Your task to perform on an android device: toggle sleep mode Image 0: 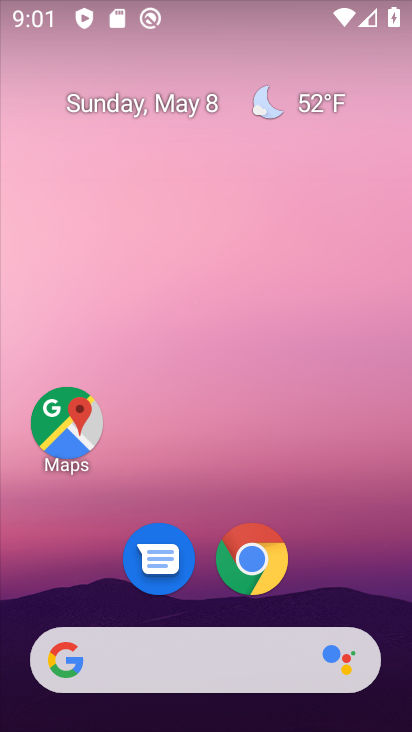
Step 0: drag from (354, 549) to (340, 5)
Your task to perform on an android device: toggle sleep mode Image 1: 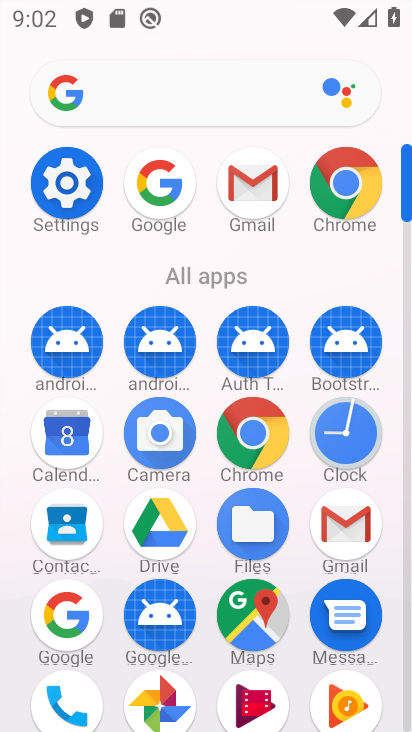
Step 1: drag from (184, 271) to (177, 56)
Your task to perform on an android device: toggle sleep mode Image 2: 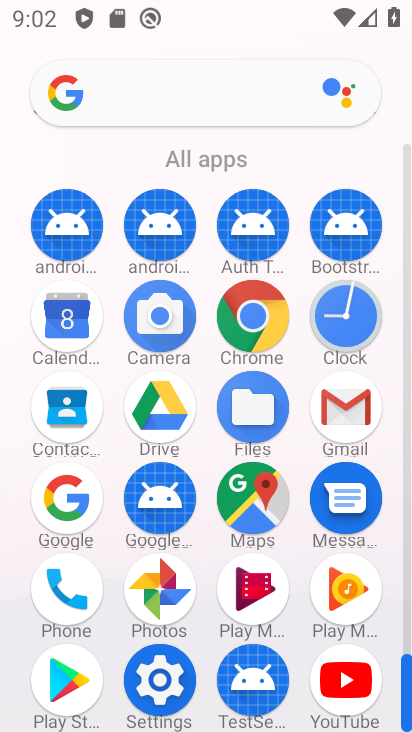
Step 2: click (166, 664)
Your task to perform on an android device: toggle sleep mode Image 3: 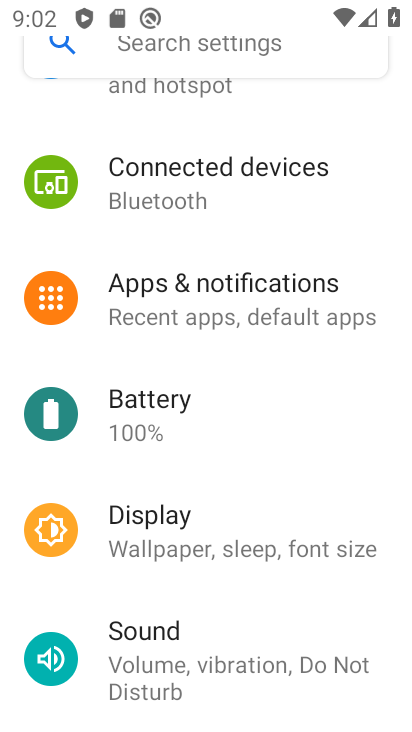
Step 3: drag from (245, 595) to (220, 229)
Your task to perform on an android device: toggle sleep mode Image 4: 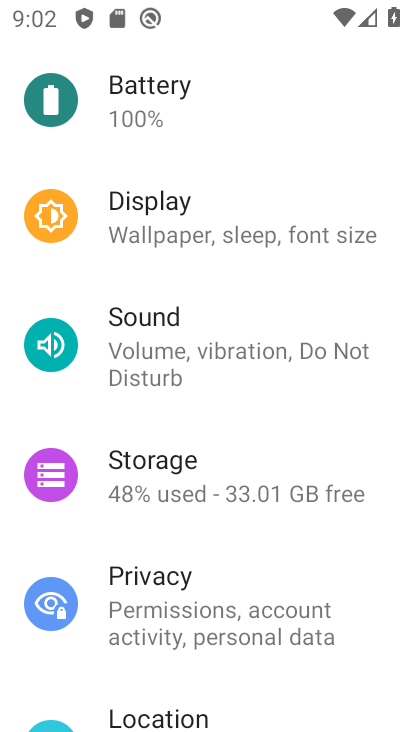
Step 4: drag from (242, 621) to (242, 188)
Your task to perform on an android device: toggle sleep mode Image 5: 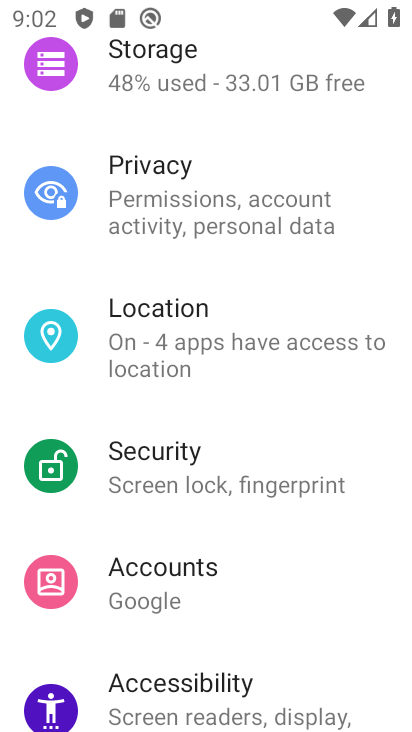
Step 5: drag from (199, 159) to (184, 728)
Your task to perform on an android device: toggle sleep mode Image 6: 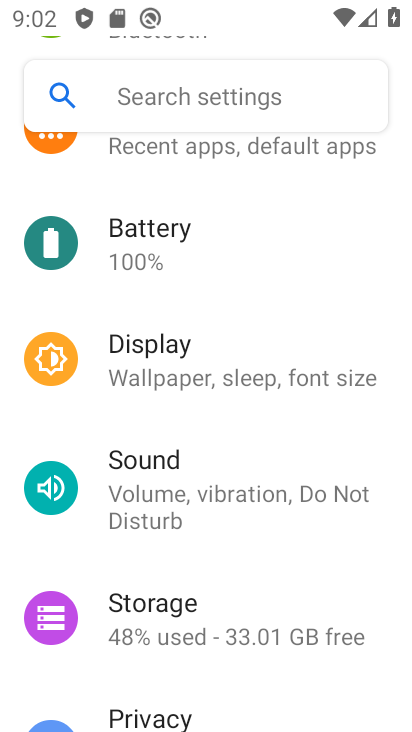
Step 6: click (178, 346)
Your task to perform on an android device: toggle sleep mode Image 7: 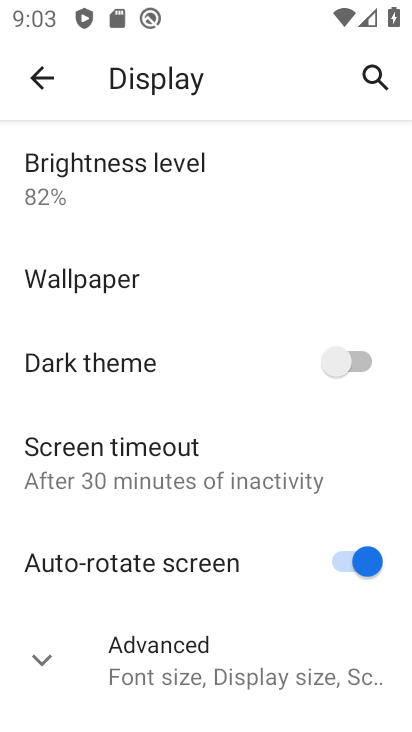
Step 7: drag from (182, 644) to (158, 294)
Your task to perform on an android device: toggle sleep mode Image 8: 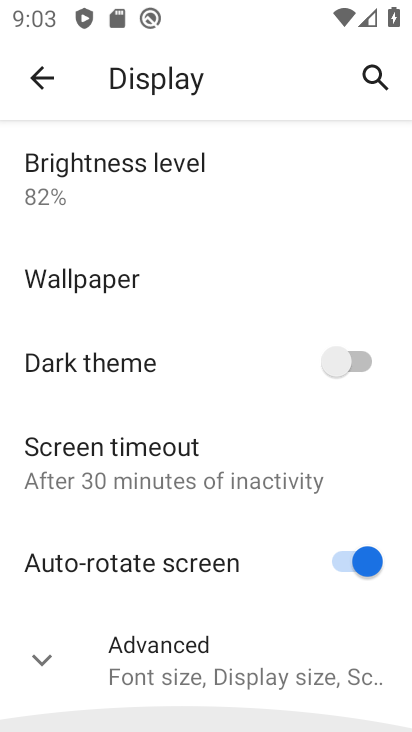
Step 8: click (158, 294)
Your task to perform on an android device: toggle sleep mode Image 9: 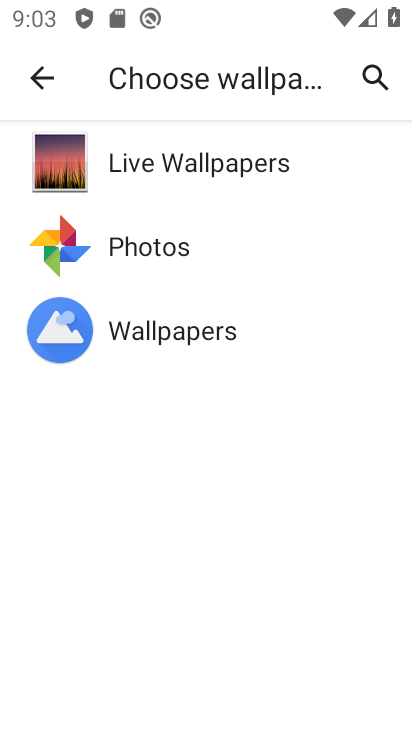
Step 9: click (28, 83)
Your task to perform on an android device: toggle sleep mode Image 10: 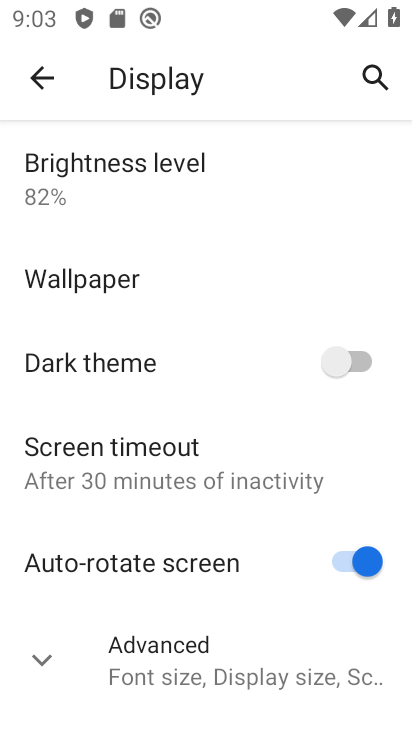
Step 10: click (67, 577)
Your task to perform on an android device: toggle sleep mode Image 11: 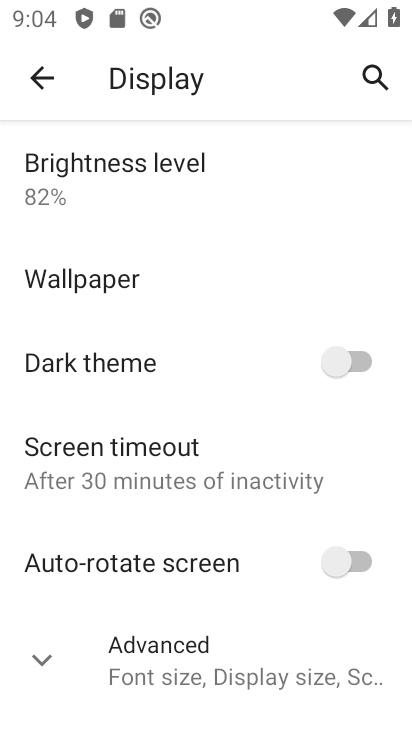
Step 11: task complete